Your task to perform on an android device: Open Google Chrome and click the shortcut for Amazon.com Image 0: 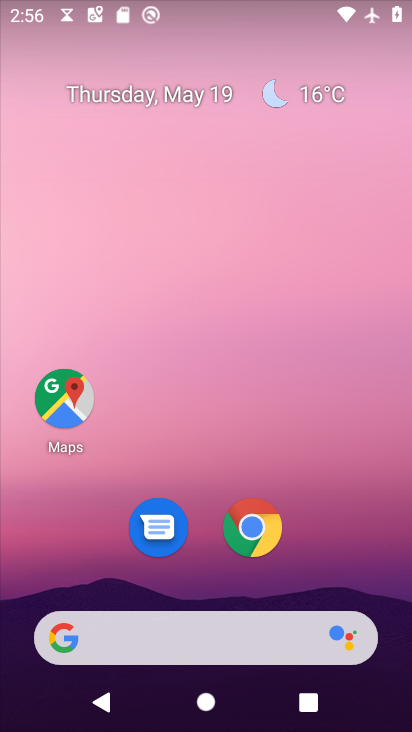
Step 0: click (264, 520)
Your task to perform on an android device: Open Google Chrome and click the shortcut for Amazon.com Image 1: 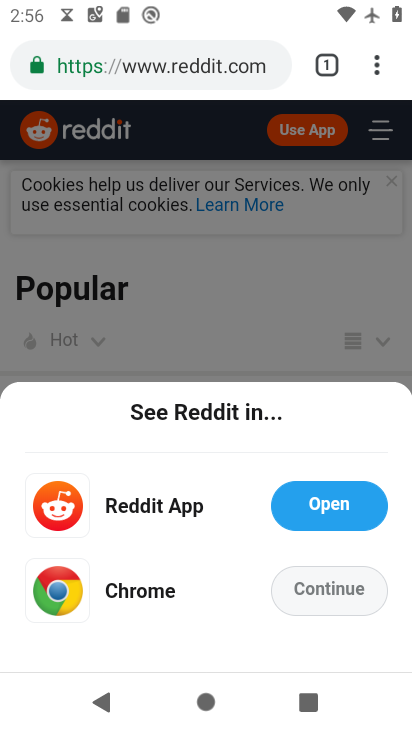
Step 1: click (335, 59)
Your task to perform on an android device: Open Google Chrome and click the shortcut for Amazon.com Image 2: 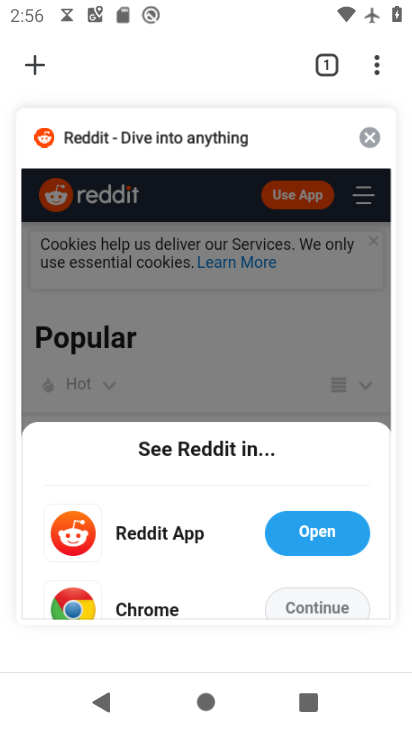
Step 2: click (41, 69)
Your task to perform on an android device: Open Google Chrome and click the shortcut for Amazon.com Image 3: 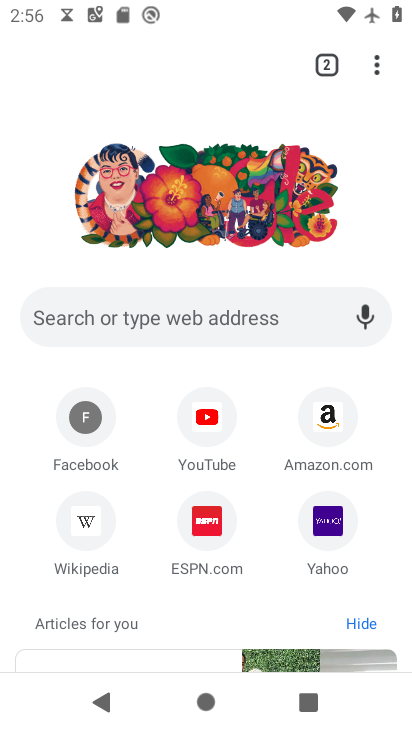
Step 3: click (331, 412)
Your task to perform on an android device: Open Google Chrome and click the shortcut for Amazon.com Image 4: 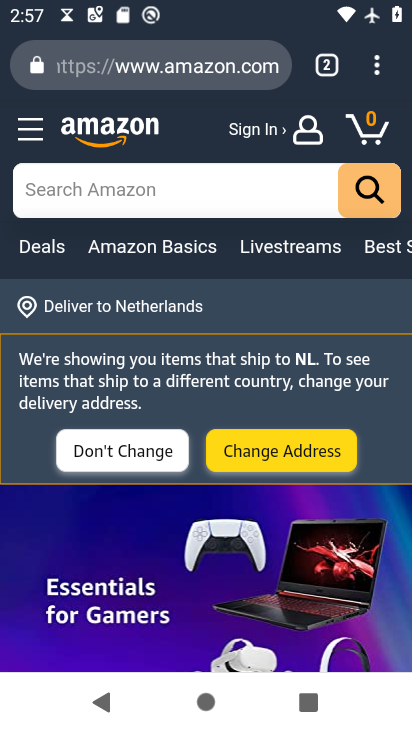
Step 4: task complete